Your task to perform on an android device: turn on airplane mode Image 0: 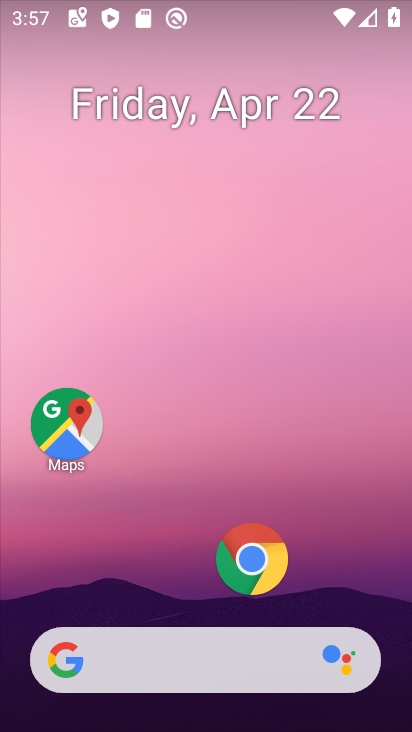
Step 0: drag from (142, 533) to (256, 48)
Your task to perform on an android device: turn on airplane mode Image 1: 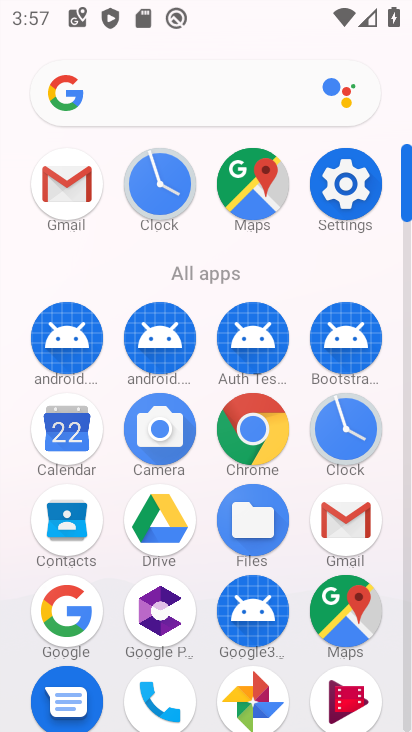
Step 1: click (335, 212)
Your task to perform on an android device: turn on airplane mode Image 2: 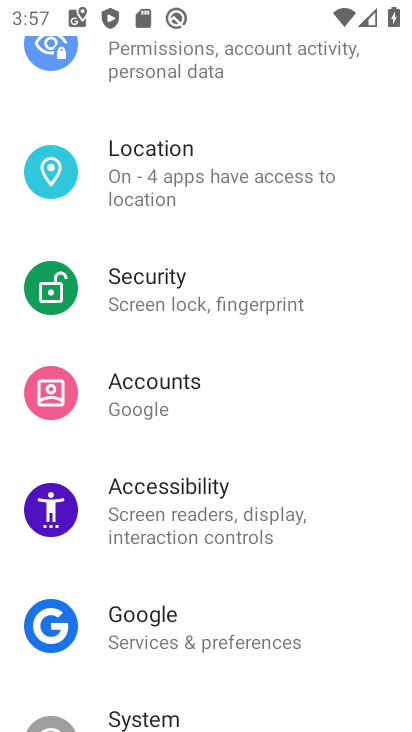
Step 2: drag from (275, 214) to (284, 440)
Your task to perform on an android device: turn on airplane mode Image 3: 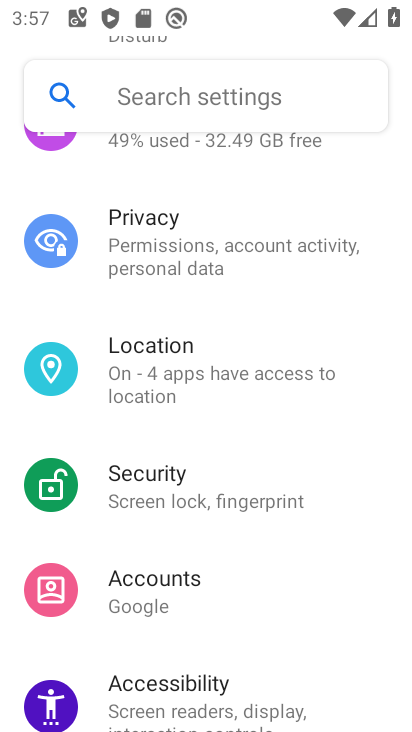
Step 3: drag from (217, 176) to (171, 625)
Your task to perform on an android device: turn on airplane mode Image 4: 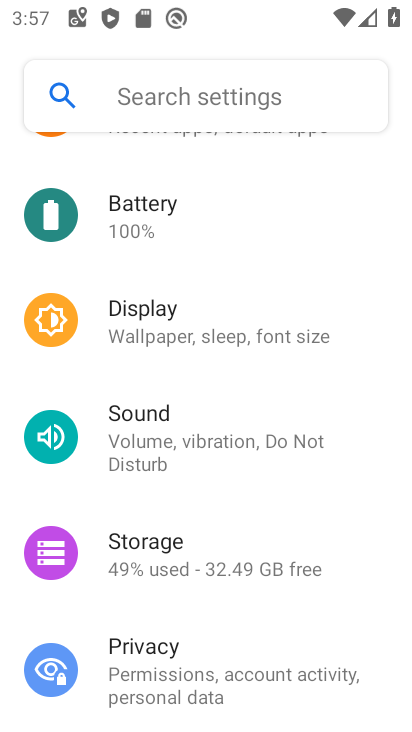
Step 4: drag from (190, 232) to (187, 420)
Your task to perform on an android device: turn on airplane mode Image 5: 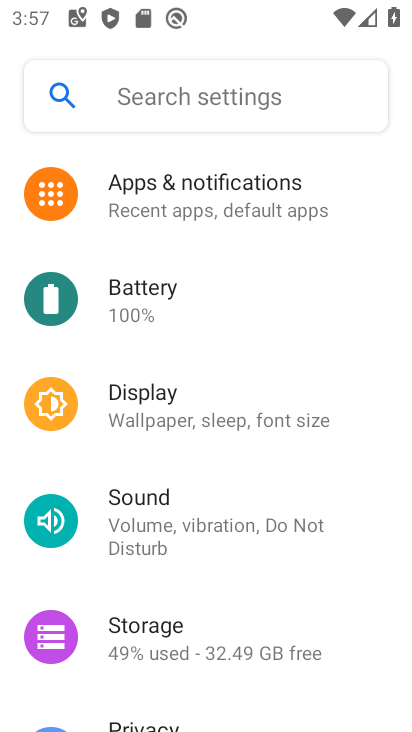
Step 5: drag from (197, 263) to (146, 708)
Your task to perform on an android device: turn on airplane mode Image 6: 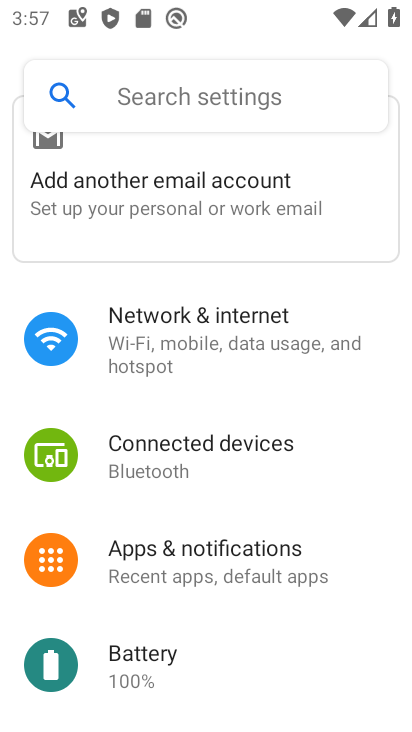
Step 6: click (170, 345)
Your task to perform on an android device: turn on airplane mode Image 7: 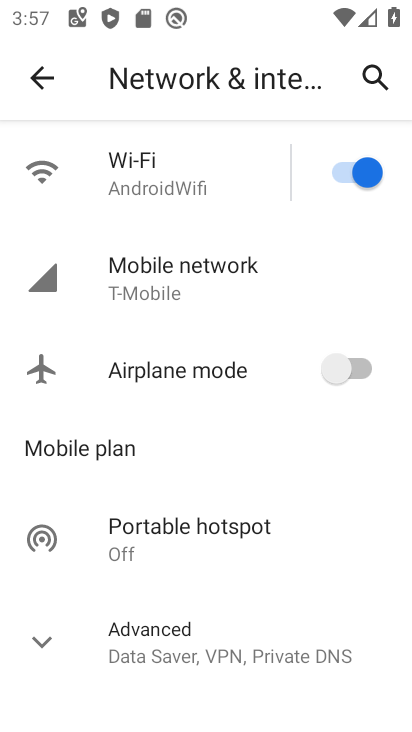
Step 7: click (302, 362)
Your task to perform on an android device: turn on airplane mode Image 8: 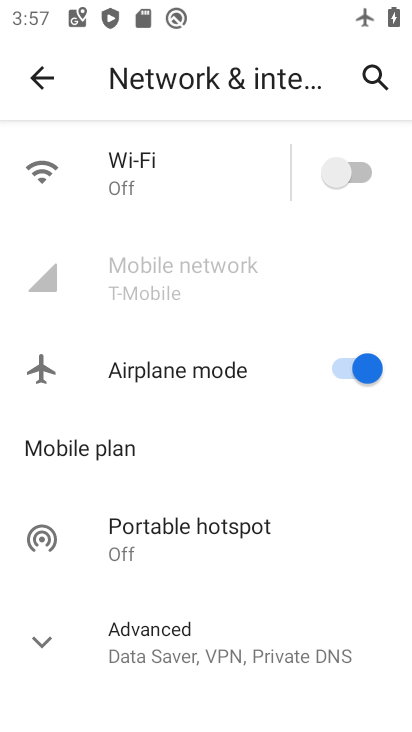
Step 8: task complete